Your task to perform on an android device: turn vacation reply on in the gmail app Image 0: 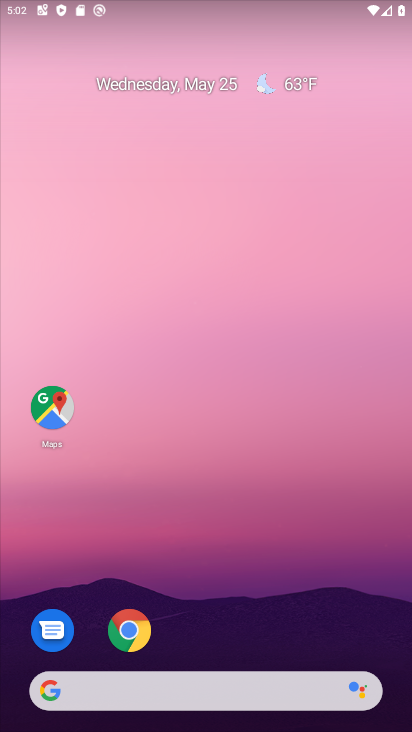
Step 0: drag from (218, 637) to (268, 53)
Your task to perform on an android device: turn vacation reply on in the gmail app Image 1: 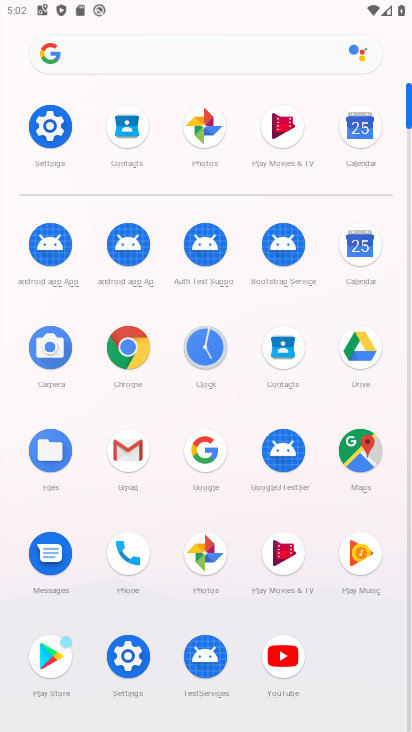
Step 1: click (128, 449)
Your task to perform on an android device: turn vacation reply on in the gmail app Image 2: 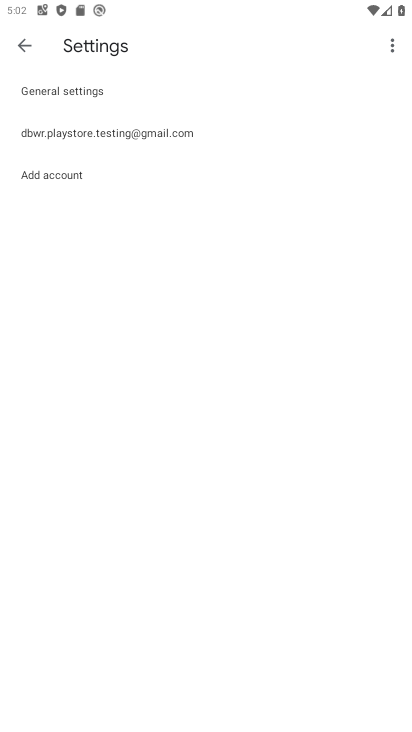
Step 2: click (15, 49)
Your task to perform on an android device: turn vacation reply on in the gmail app Image 3: 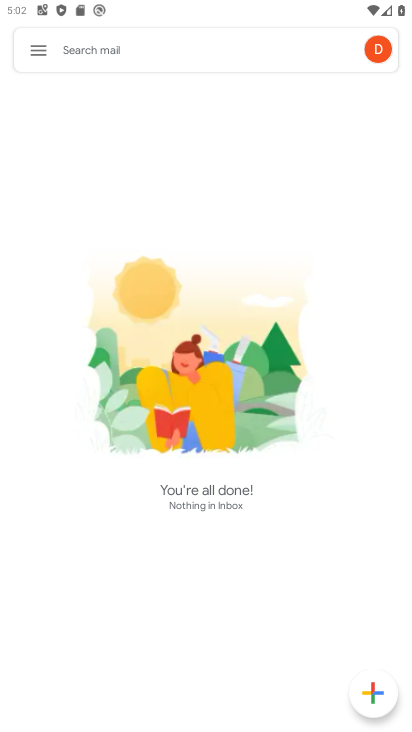
Step 3: click (32, 50)
Your task to perform on an android device: turn vacation reply on in the gmail app Image 4: 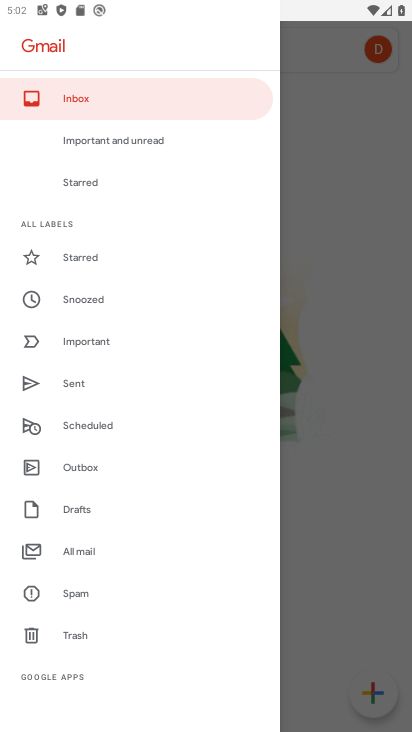
Step 4: drag from (144, 598) to (218, 6)
Your task to perform on an android device: turn vacation reply on in the gmail app Image 5: 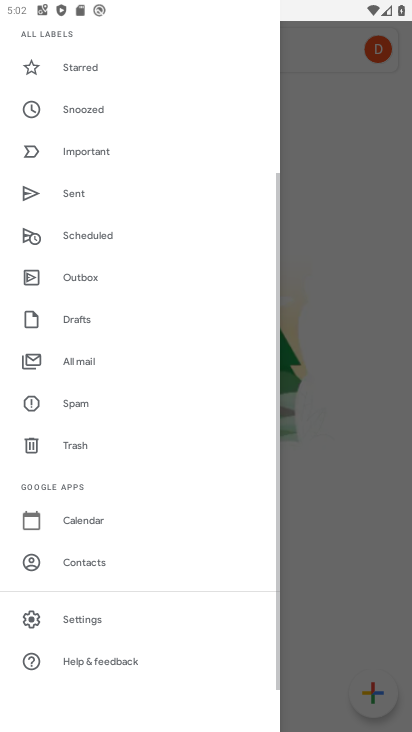
Step 5: click (73, 621)
Your task to perform on an android device: turn vacation reply on in the gmail app Image 6: 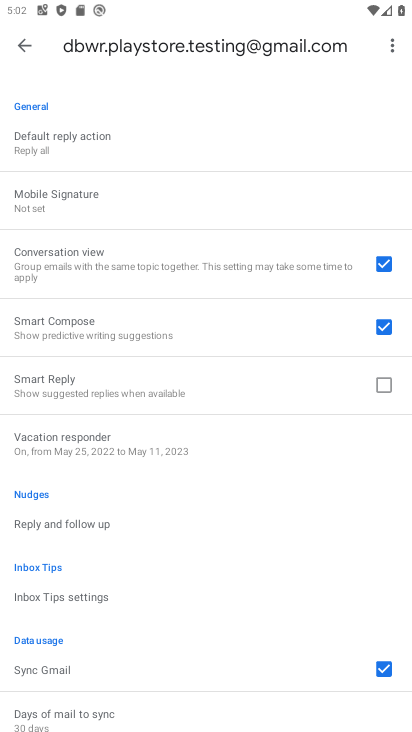
Step 6: click (129, 439)
Your task to perform on an android device: turn vacation reply on in the gmail app Image 7: 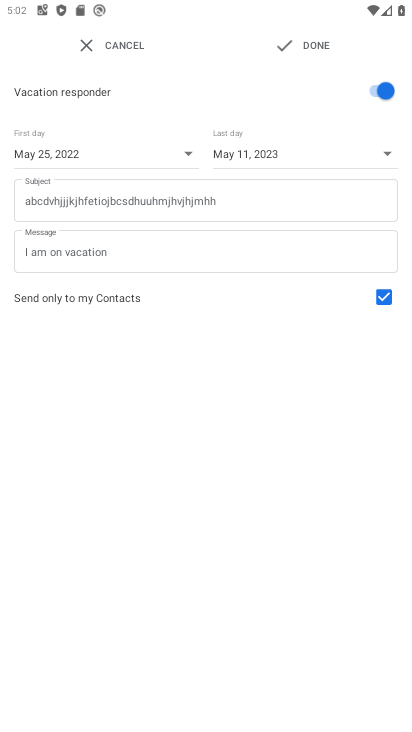
Step 7: task complete